Your task to perform on an android device: check android version Image 0: 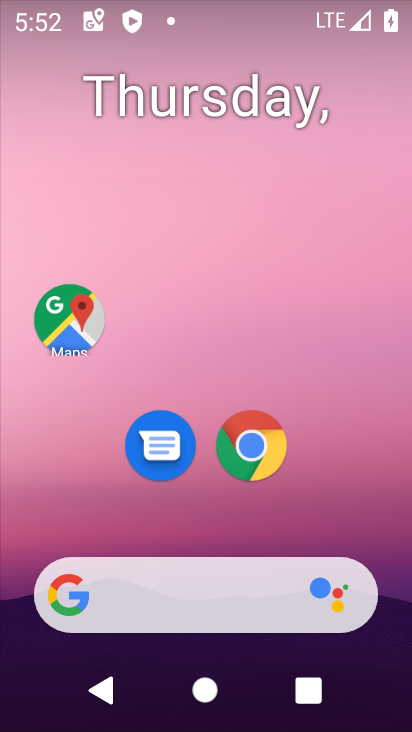
Step 0: drag from (292, 511) to (334, 150)
Your task to perform on an android device: check android version Image 1: 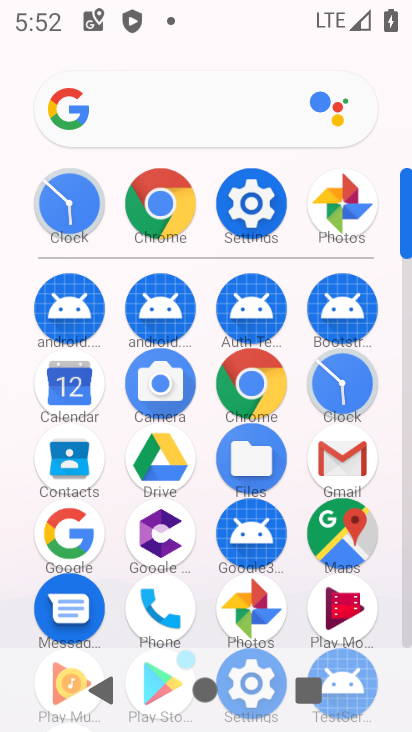
Step 1: click (253, 196)
Your task to perform on an android device: check android version Image 2: 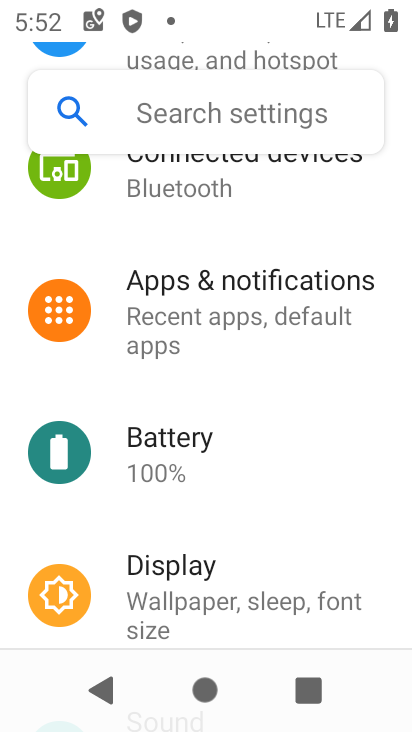
Step 2: drag from (315, 524) to (338, 140)
Your task to perform on an android device: check android version Image 3: 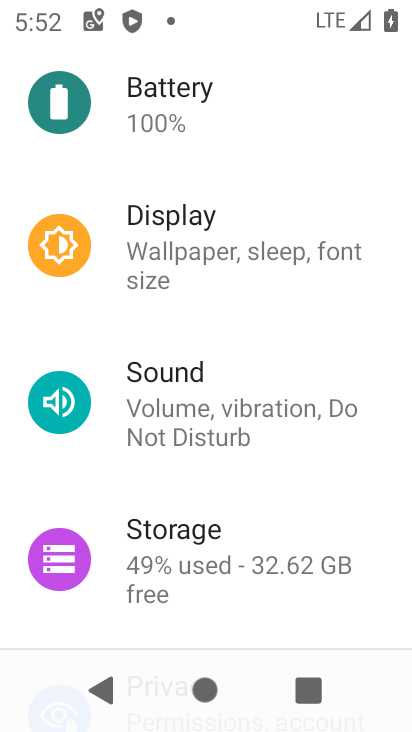
Step 3: drag from (258, 616) to (308, 133)
Your task to perform on an android device: check android version Image 4: 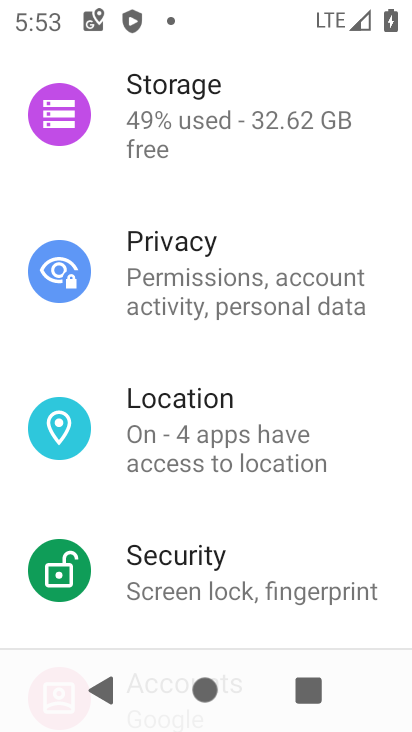
Step 4: drag from (307, 591) to (330, 169)
Your task to perform on an android device: check android version Image 5: 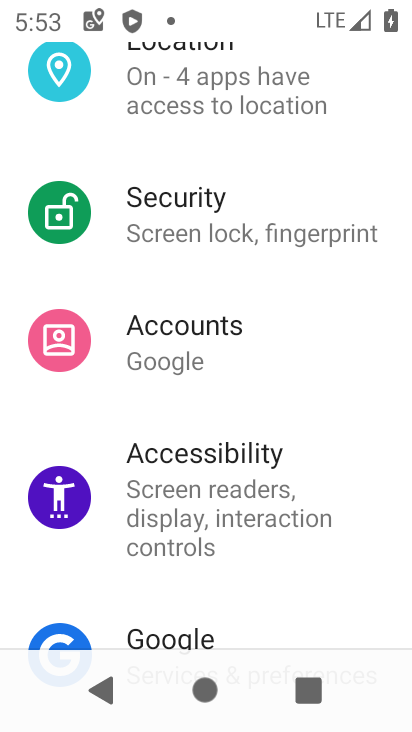
Step 5: drag from (297, 588) to (323, 173)
Your task to perform on an android device: check android version Image 6: 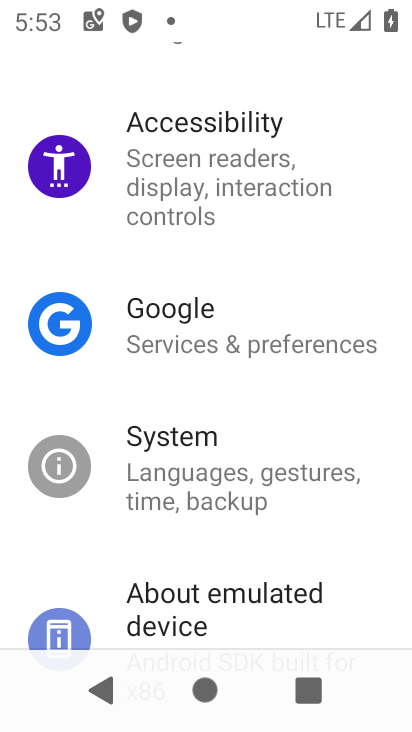
Step 6: drag from (342, 617) to (351, 172)
Your task to perform on an android device: check android version Image 7: 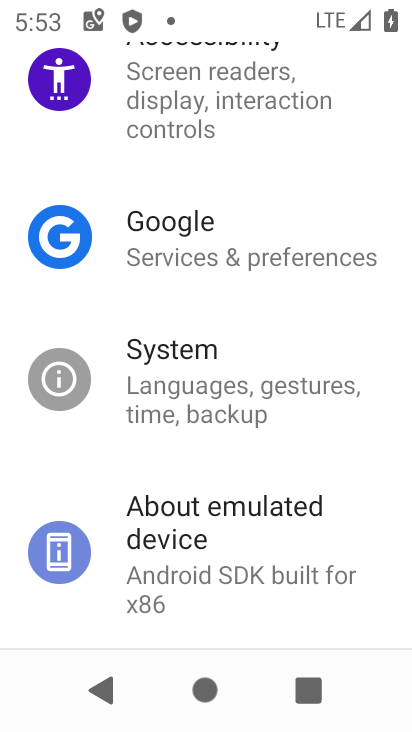
Step 7: click (210, 537)
Your task to perform on an android device: check android version Image 8: 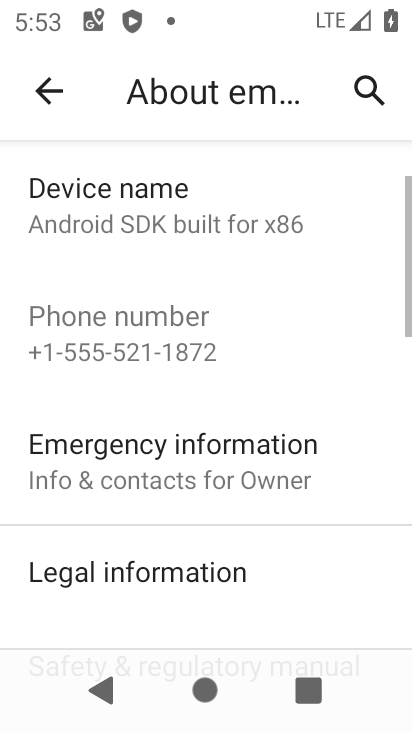
Step 8: drag from (288, 599) to (314, 244)
Your task to perform on an android device: check android version Image 9: 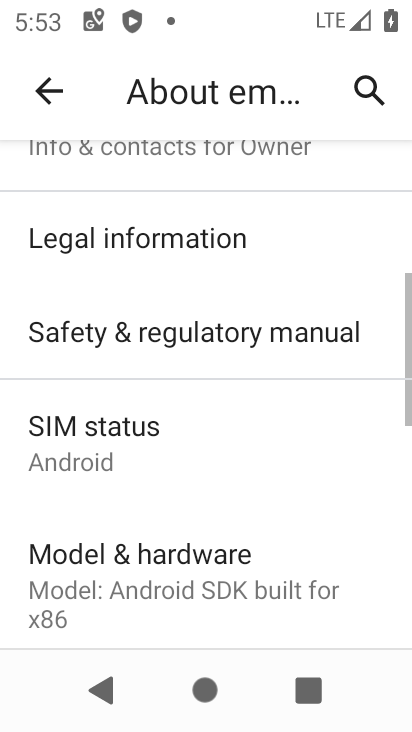
Step 9: drag from (308, 595) to (308, 229)
Your task to perform on an android device: check android version Image 10: 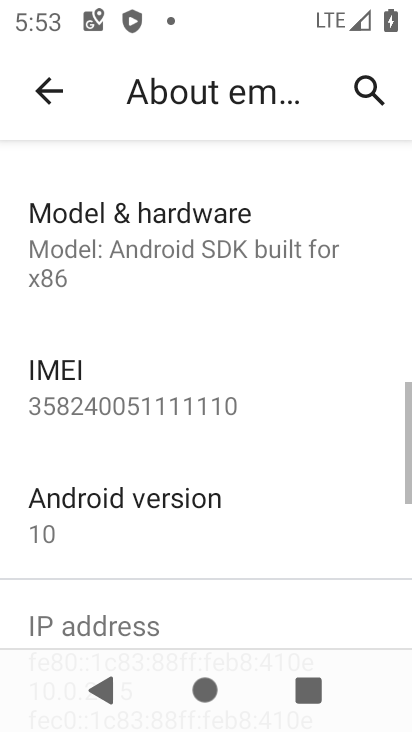
Step 10: click (110, 499)
Your task to perform on an android device: check android version Image 11: 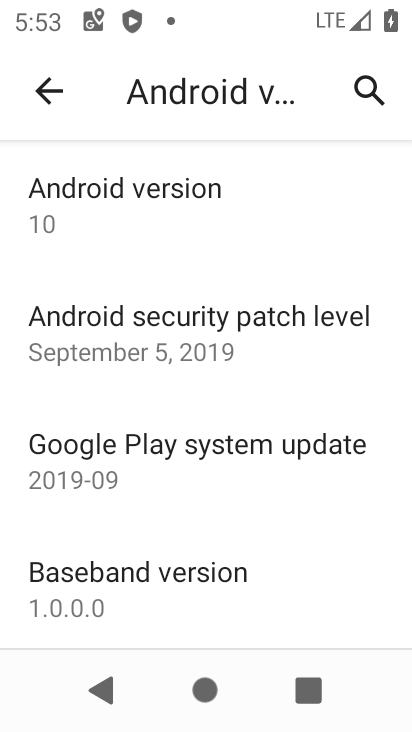
Step 11: task complete